Your task to perform on an android device: What is the news today? Image 0: 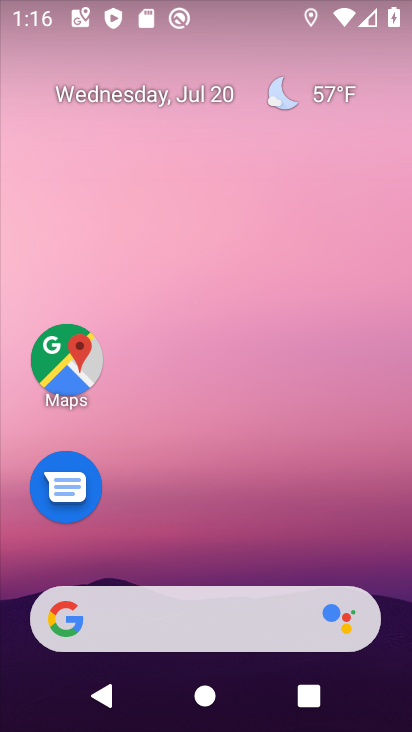
Step 0: click (173, 626)
Your task to perform on an android device: What is the news today? Image 1: 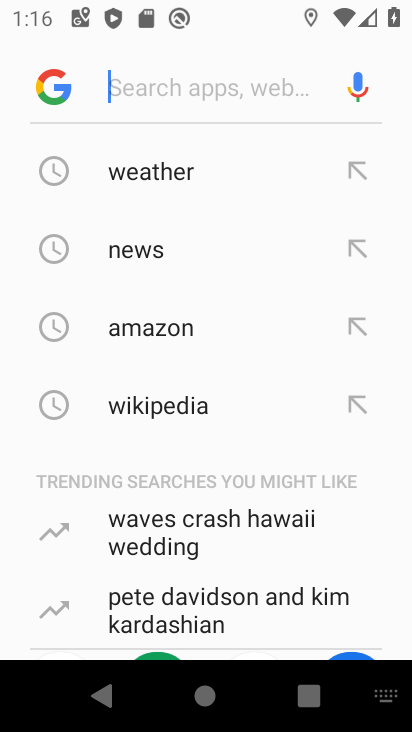
Step 1: click (166, 248)
Your task to perform on an android device: What is the news today? Image 2: 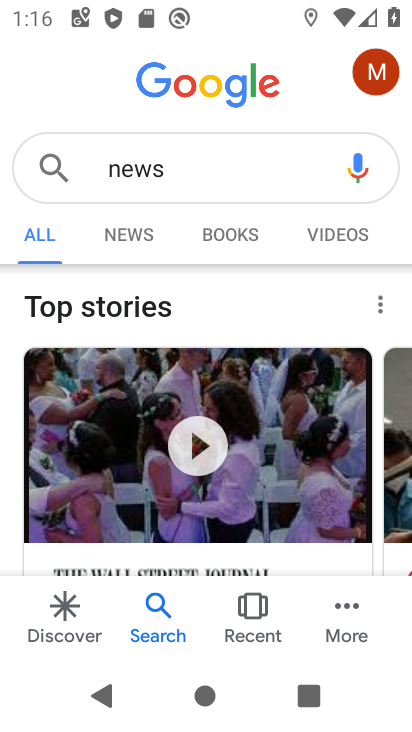
Step 2: task complete